Your task to perform on an android device: find photos in the google photos app Image 0: 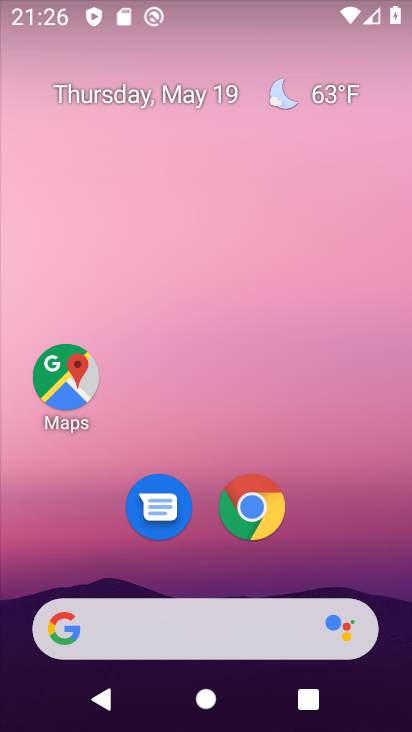
Step 0: drag from (399, 591) to (338, 157)
Your task to perform on an android device: find photos in the google photos app Image 1: 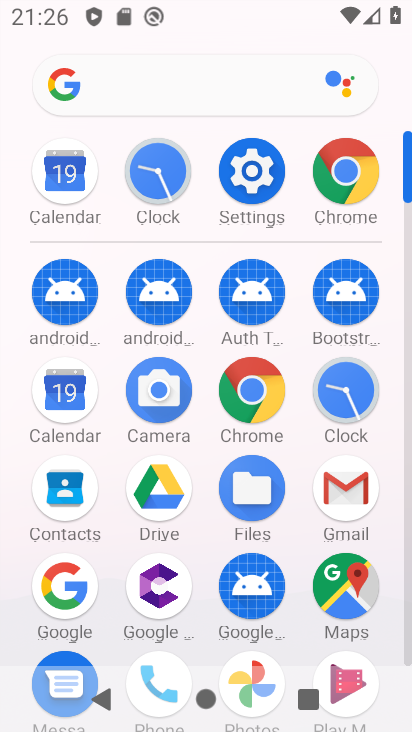
Step 1: click (248, 661)
Your task to perform on an android device: find photos in the google photos app Image 2: 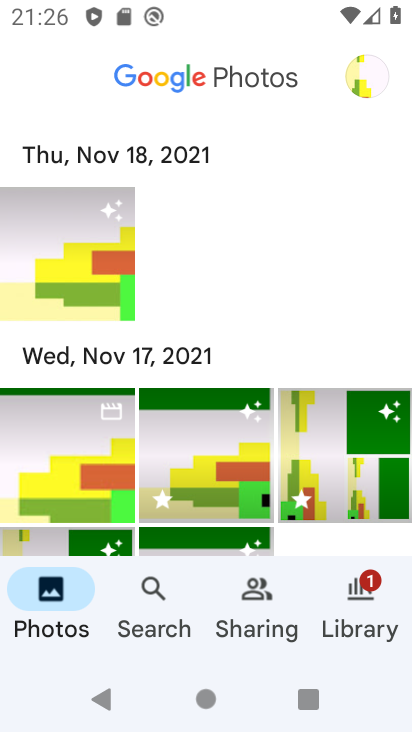
Step 2: task complete